Your task to perform on an android device: change timer sound Image 0: 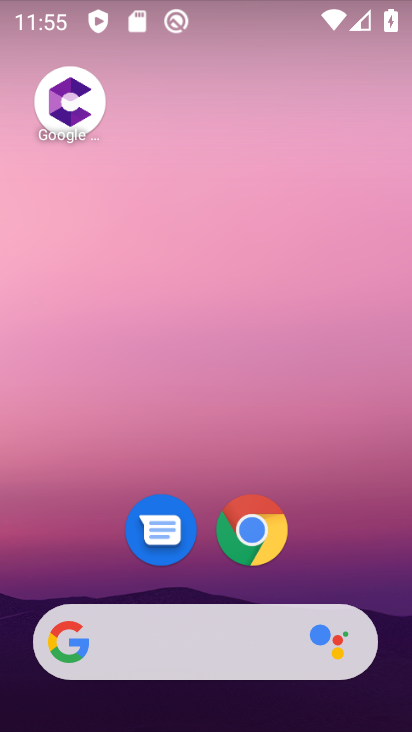
Step 0: drag from (81, 593) to (226, 211)
Your task to perform on an android device: change timer sound Image 1: 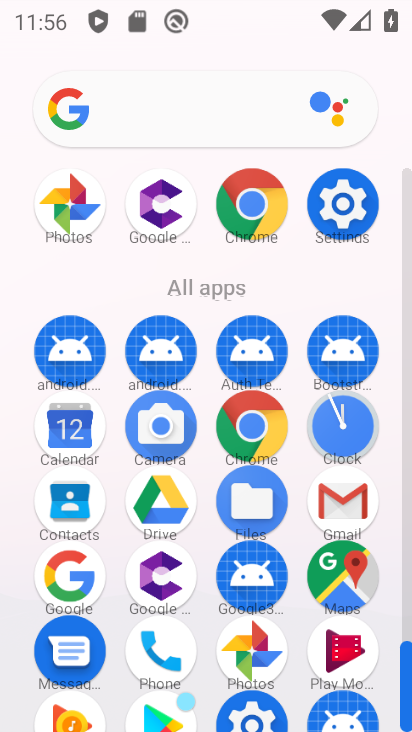
Step 1: click (353, 399)
Your task to perform on an android device: change timer sound Image 2: 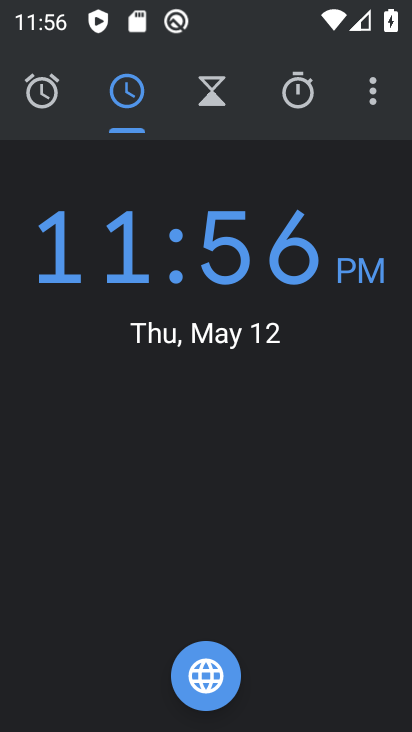
Step 2: click (370, 69)
Your task to perform on an android device: change timer sound Image 3: 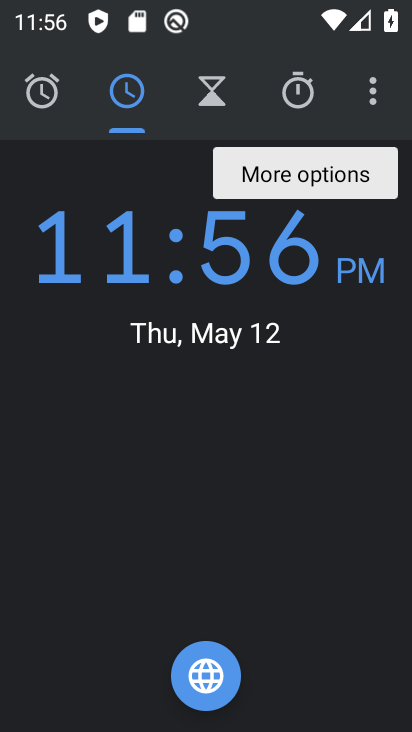
Step 3: click (385, 86)
Your task to perform on an android device: change timer sound Image 4: 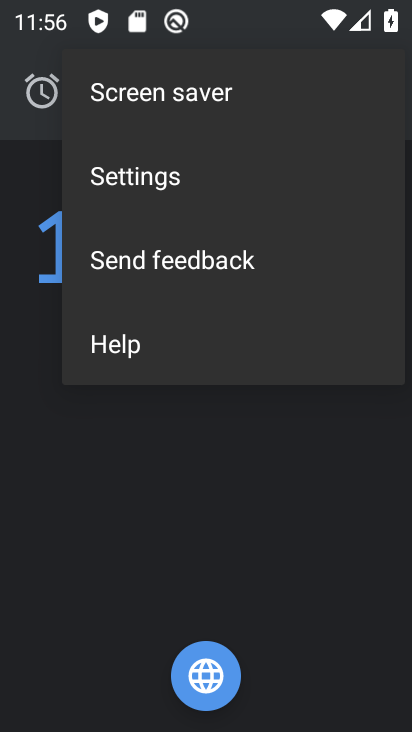
Step 4: click (310, 153)
Your task to perform on an android device: change timer sound Image 5: 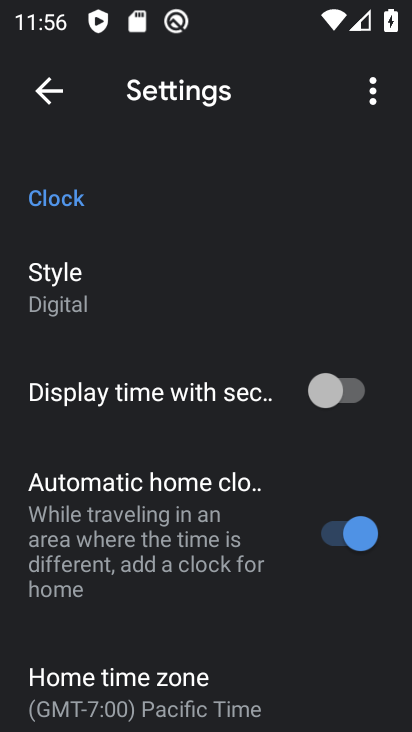
Step 5: drag from (151, 639) to (306, 140)
Your task to perform on an android device: change timer sound Image 6: 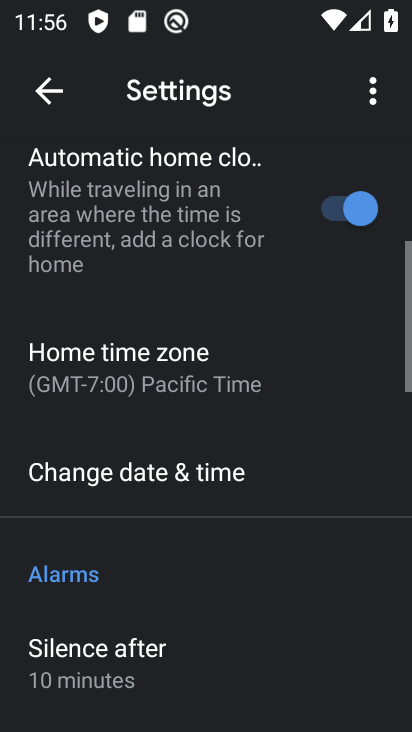
Step 6: drag from (185, 581) to (305, 188)
Your task to perform on an android device: change timer sound Image 7: 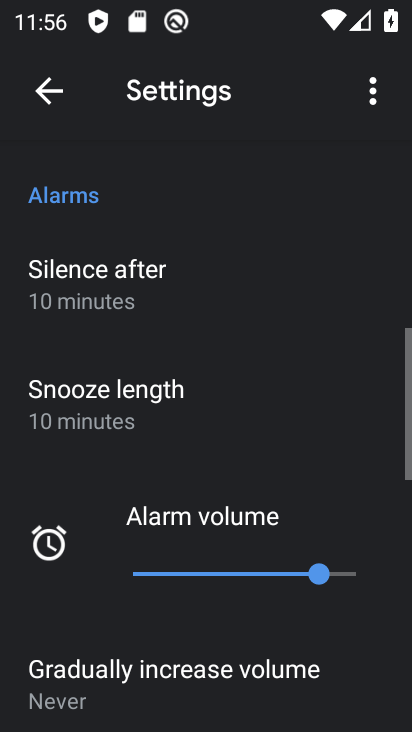
Step 7: drag from (184, 643) to (392, 185)
Your task to perform on an android device: change timer sound Image 8: 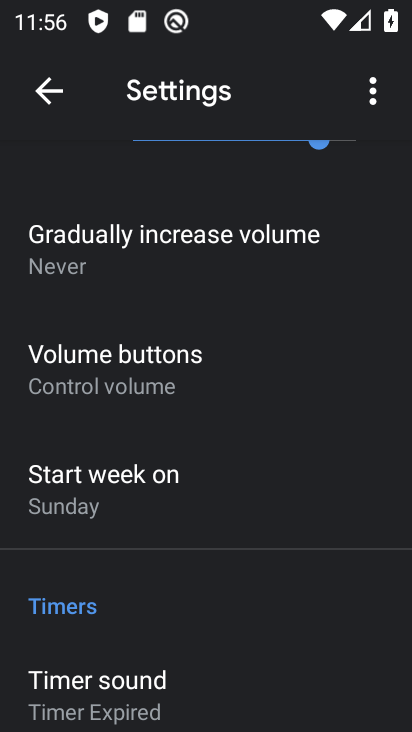
Step 8: drag from (173, 637) to (277, 354)
Your task to perform on an android device: change timer sound Image 9: 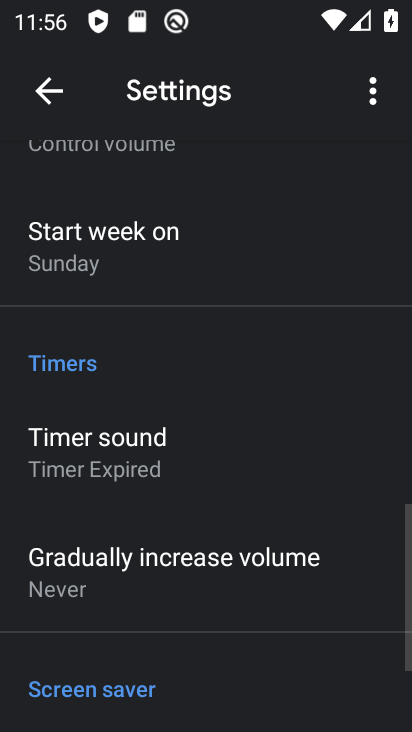
Step 9: click (236, 458)
Your task to perform on an android device: change timer sound Image 10: 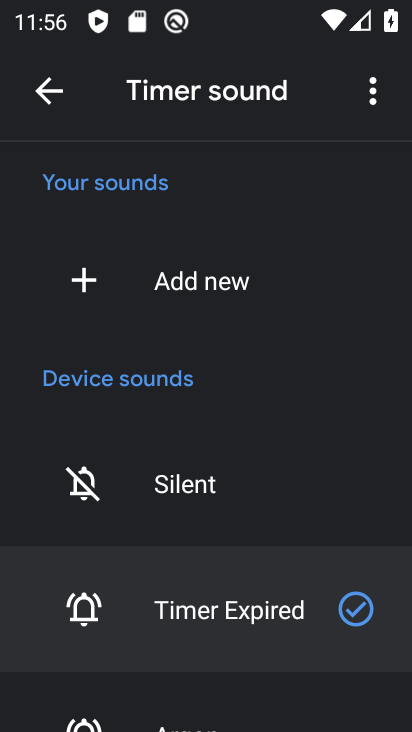
Step 10: drag from (233, 678) to (358, 171)
Your task to perform on an android device: change timer sound Image 11: 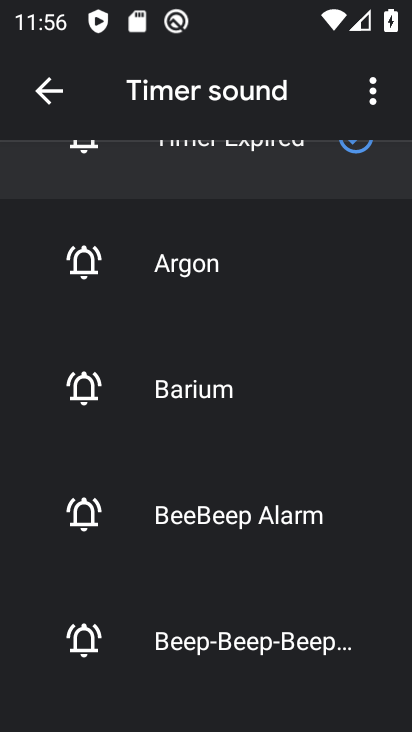
Step 11: click (254, 535)
Your task to perform on an android device: change timer sound Image 12: 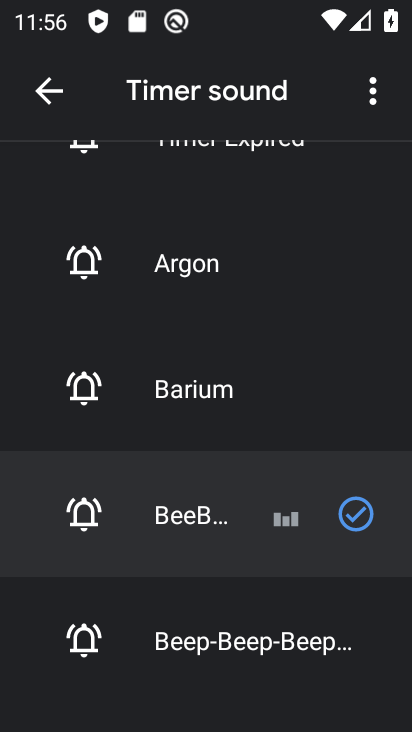
Step 12: task complete